Your task to perform on an android device: Open Chrome and go to the settings page Image 0: 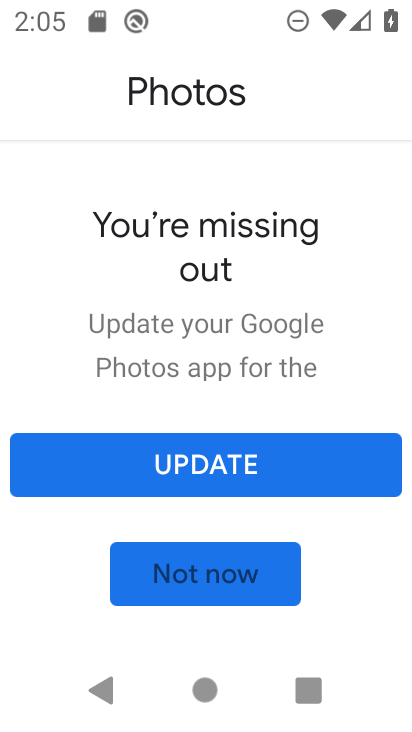
Step 0: press home button
Your task to perform on an android device: Open Chrome and go to the settings page Image 1: 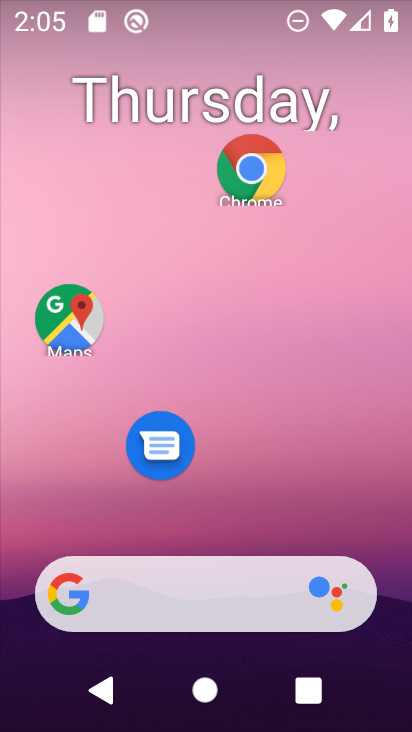
Step 1: drag from (225, 629) to (291, 97)
Your task to perform on an android device: Open Chrome and go to the settings page Image 2: 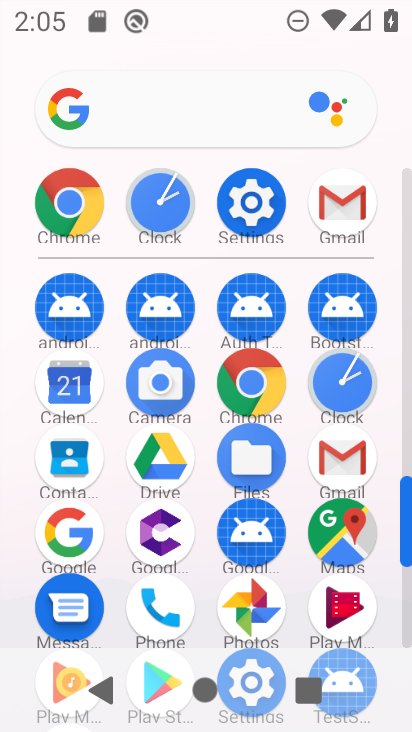
Step 2: click (70, 205)
Your task to perform on an android device: Open Chrome and go to the settings page Image 3: 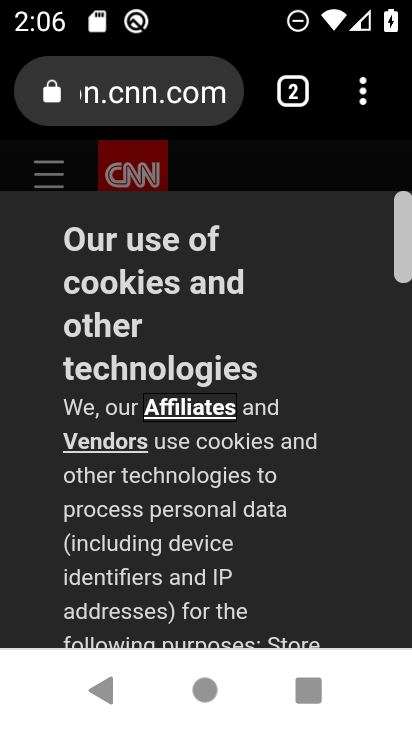
Step 3: click (368, 101)
Your task to perform on an android device: Open Chrome and go to the settings page Image 4: 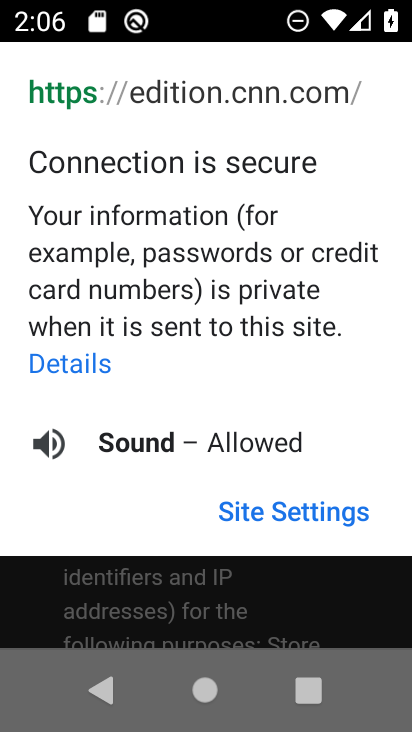
Step 4: click (209, 562)
Your task to perform on an android device: Open Chrome and go to the settings page Image 5: 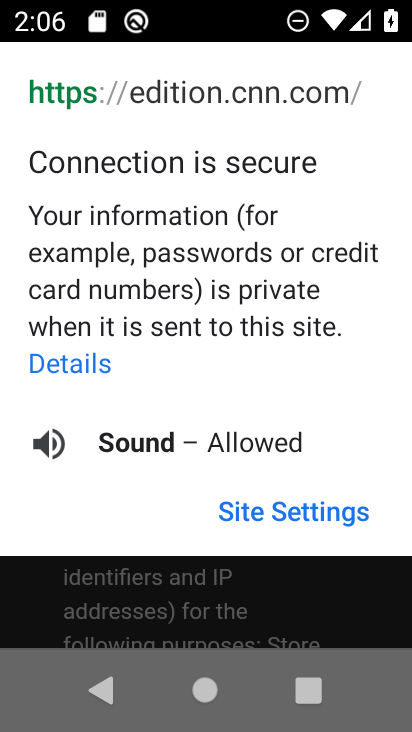
Step 5: press back button
Your task to perform on an android device: Open Chrome and go to the settings page Image 6: 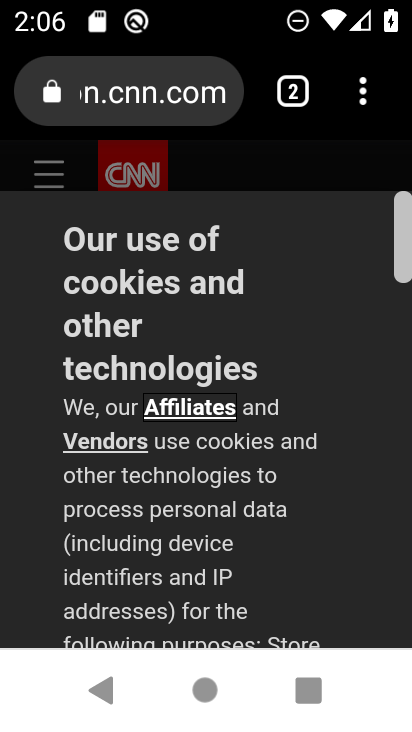
Step 6: click (361, 87)
Your task to perform on an android device: Open Chrome and go to the settings page Image 7: 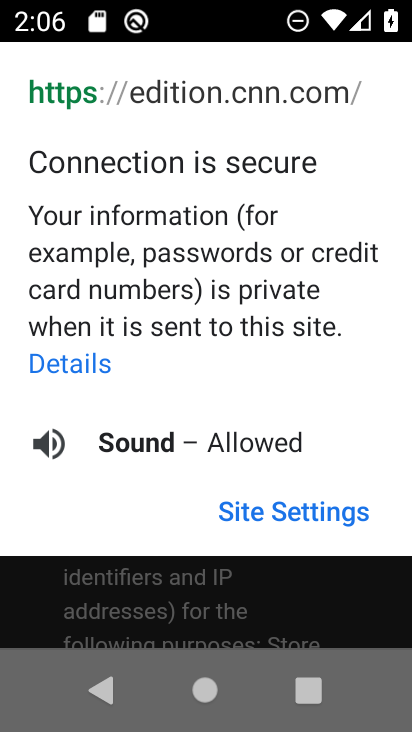
Step 7: click (283, 521)
Your task to perform on an android device: Open Chrome and go to the settings page Image 8: 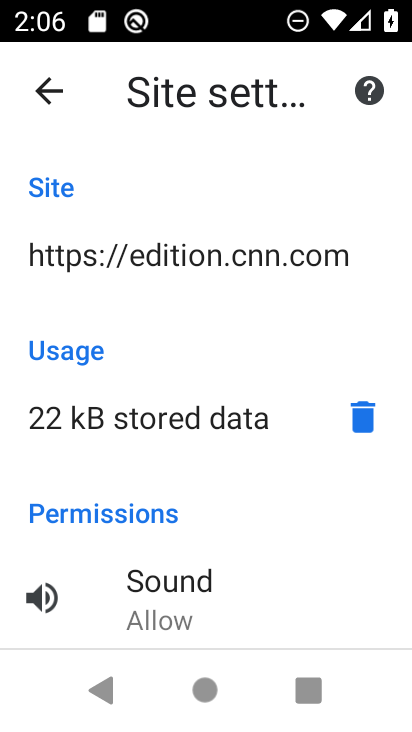
Step 8: task complete